Your task to perform on an android device: set the stopwatch Image 0: 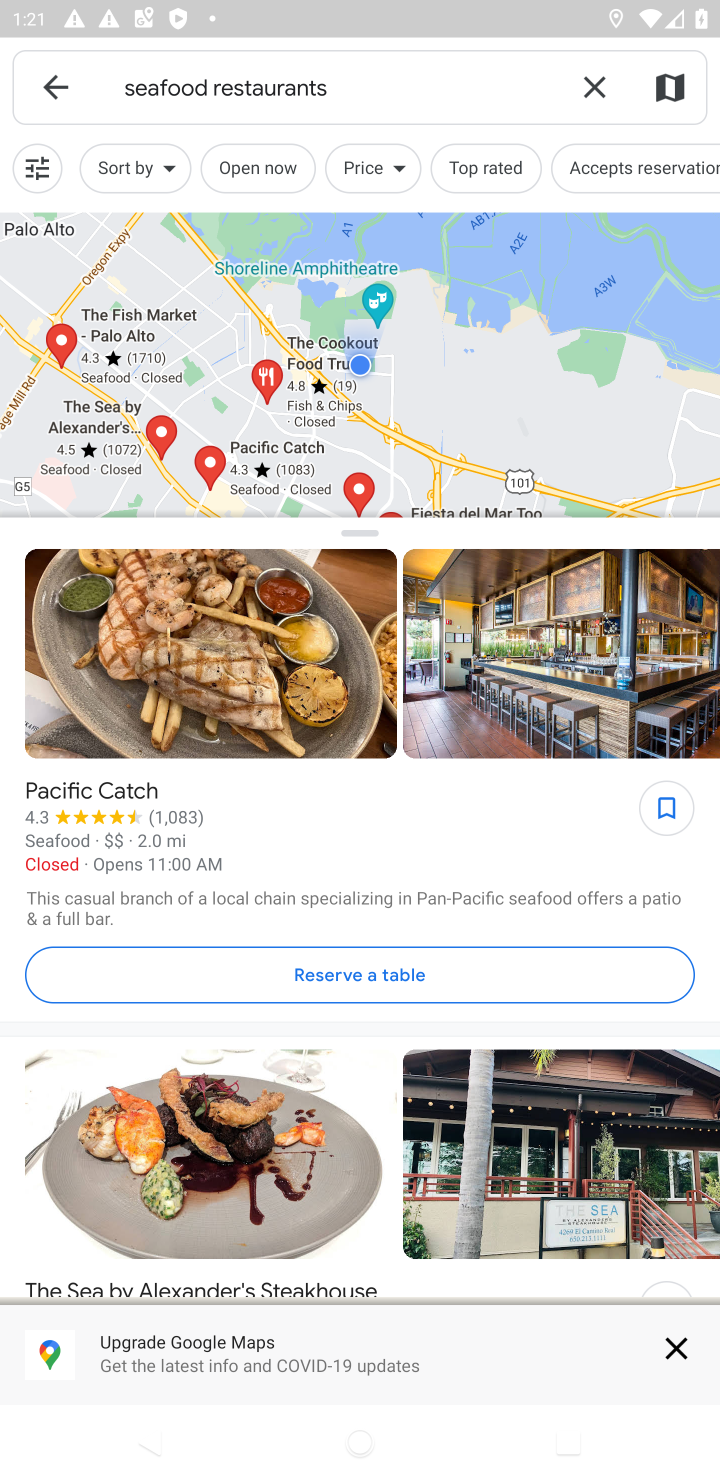
Step 0: press home button
Your task to perform on an android device: set the stopwatch Image 1: 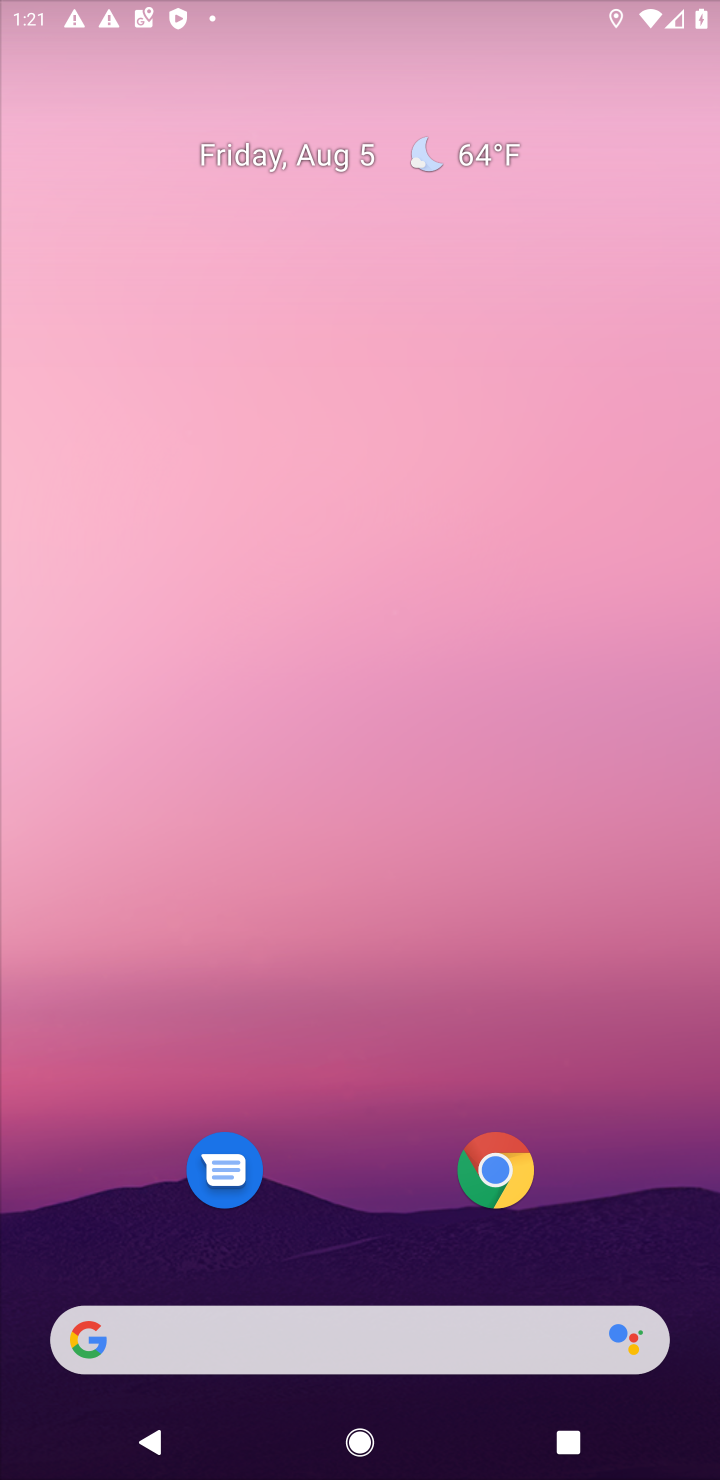
Step 1: drag from (157, 888) to (439, 181)
Your task to perform on an android device: set the stopwatch Image 2: 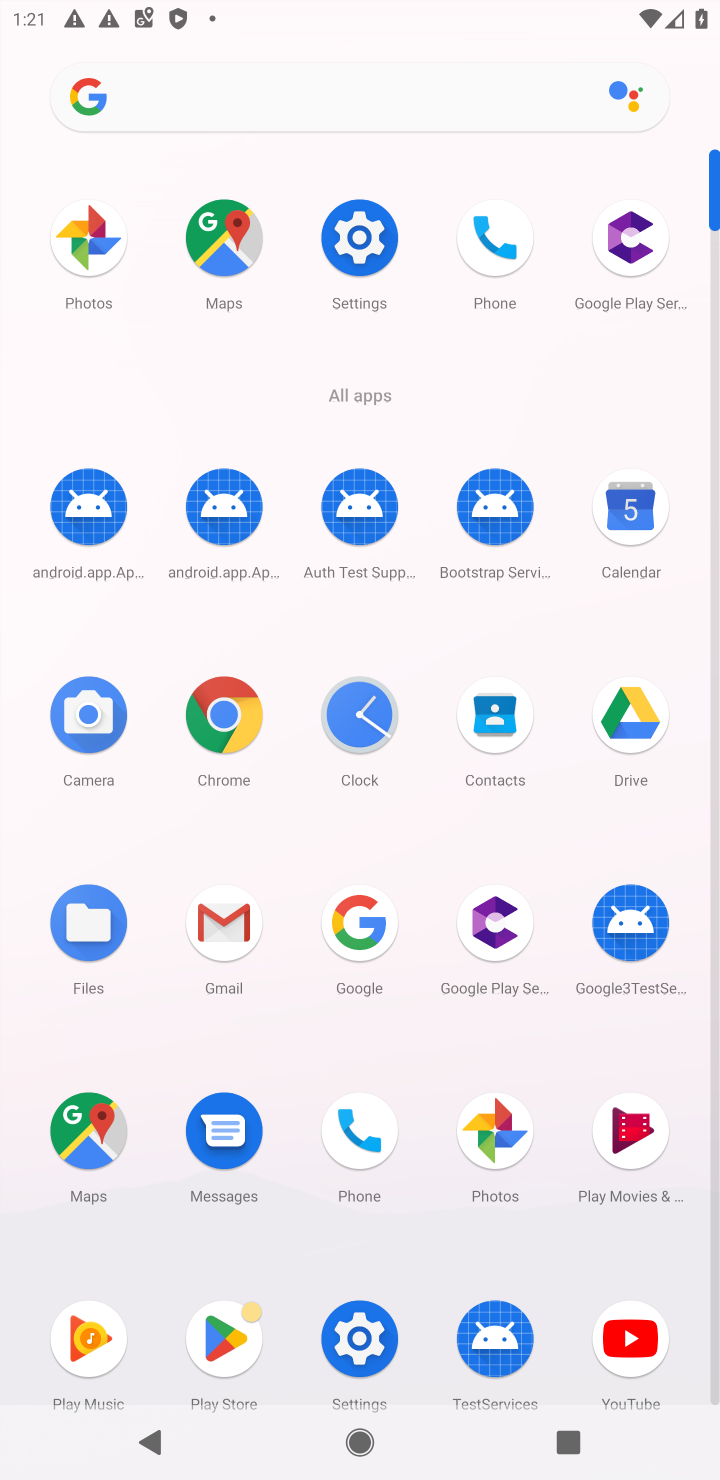
Step 2: click (340, 725)
Your task to perform on an android device: set the stopwatch Image 3: 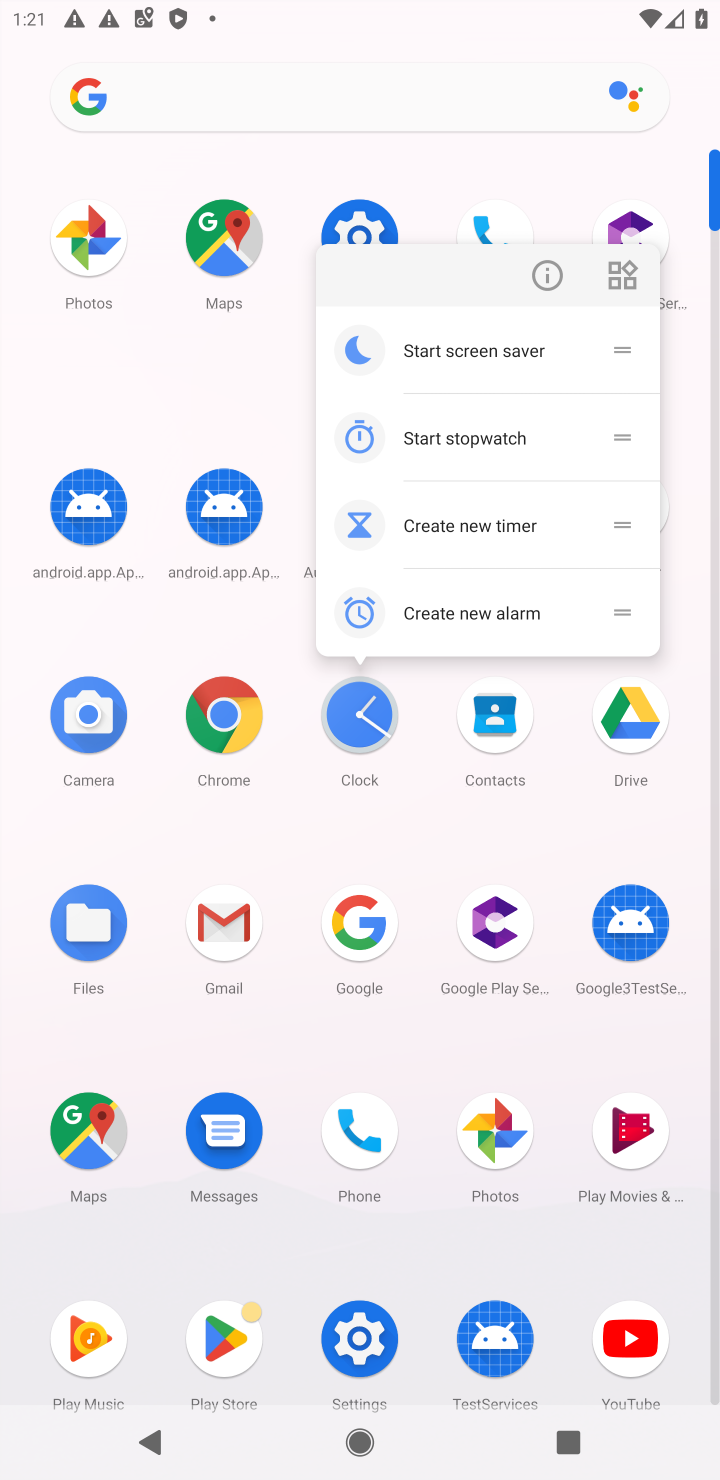
Step 3: click (357, 711)
Your task to perform on an android device: set the stopwatch Image 4: 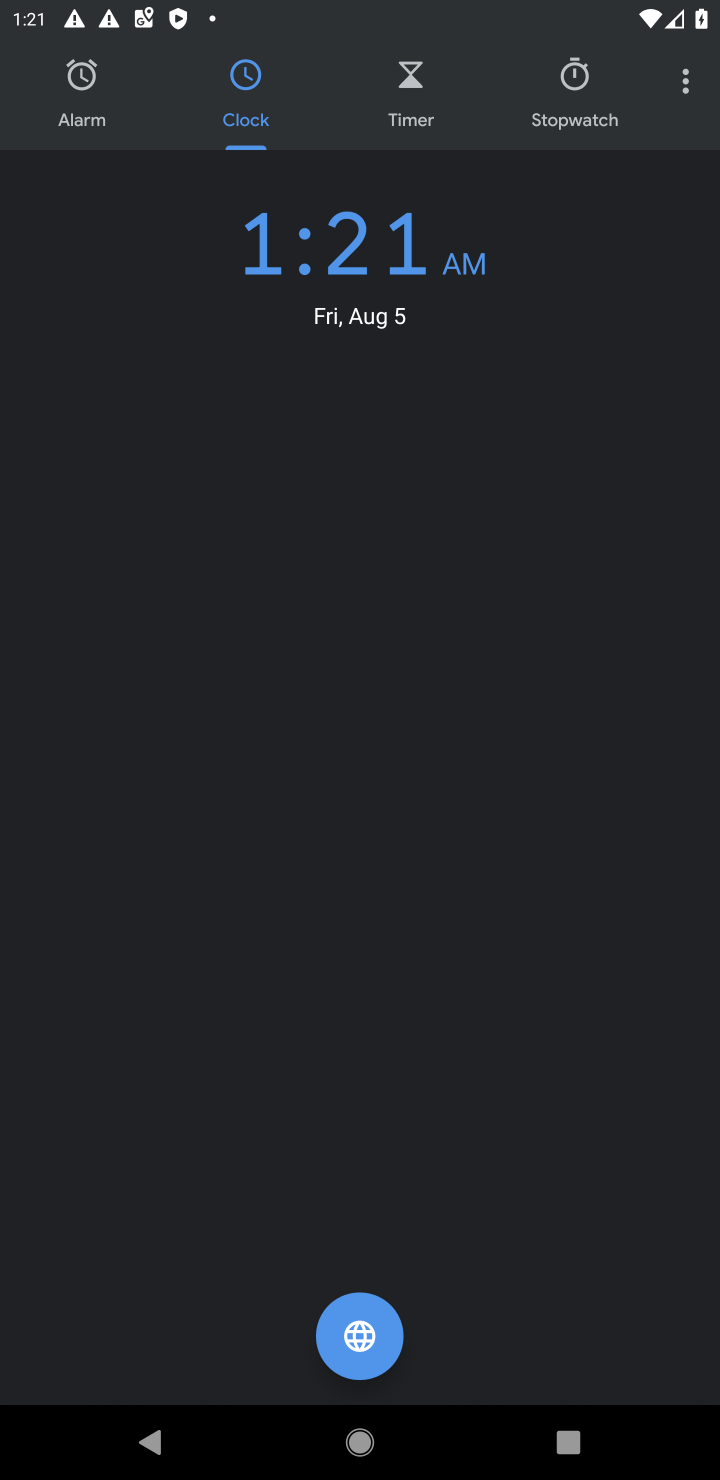
Step 4: click (573, 81)
Your task to perform on an android device: set the stopwatch Image 5: 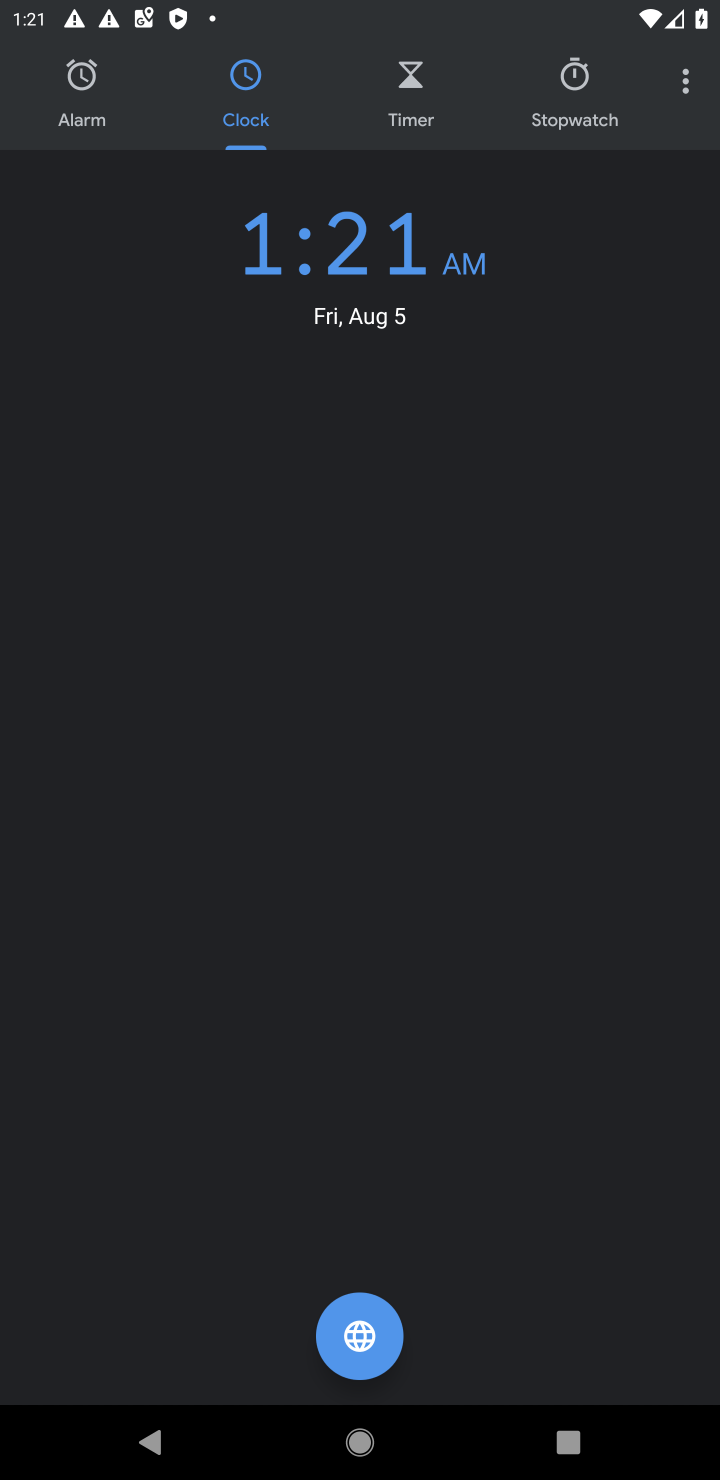
Step 5: click (562, 69)
Your task to perform on an android device: set the stopwatch Image 6: 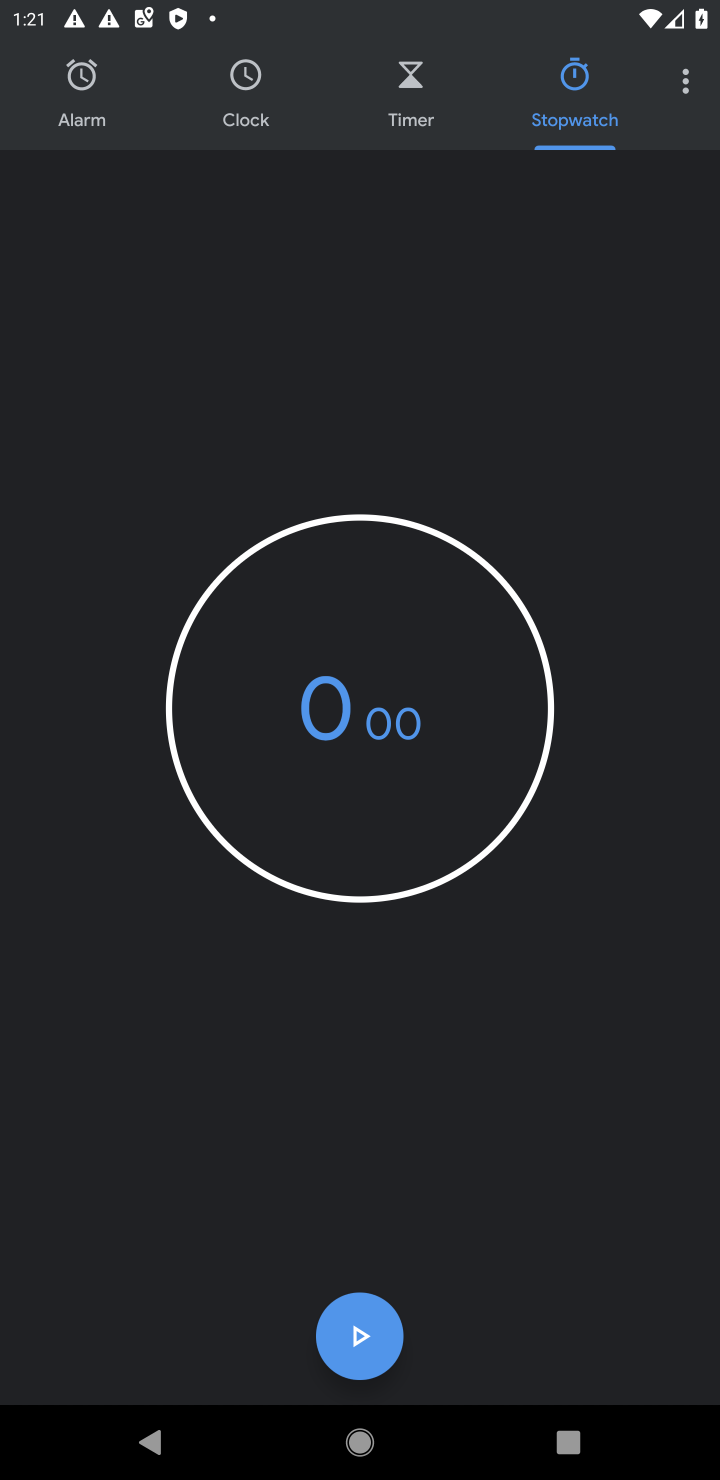
Step 6: click (373, 1335)
Your task to perform on an android device: set the stopwatch Image 7: 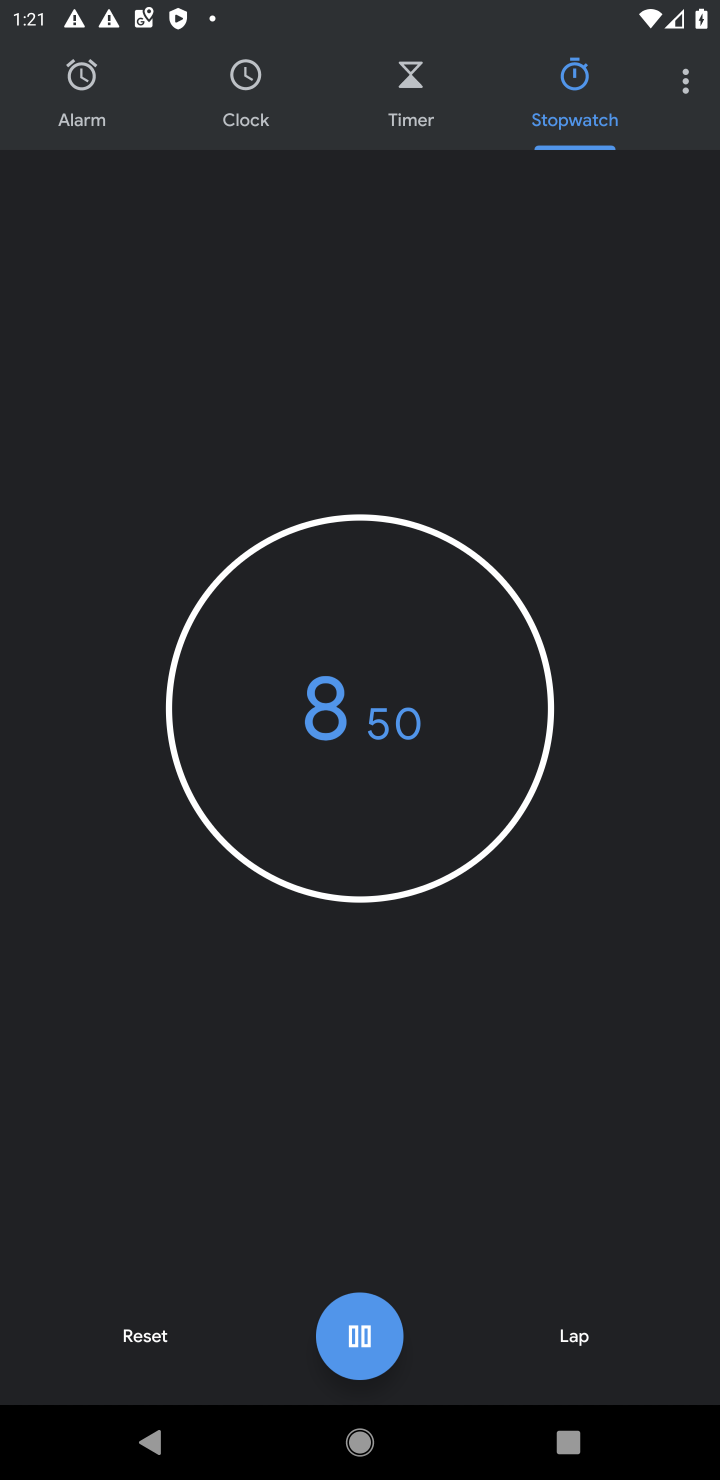
Step 7: task complete